Your task to perform on an android device: turn pop-ups on in chrome Image 0: 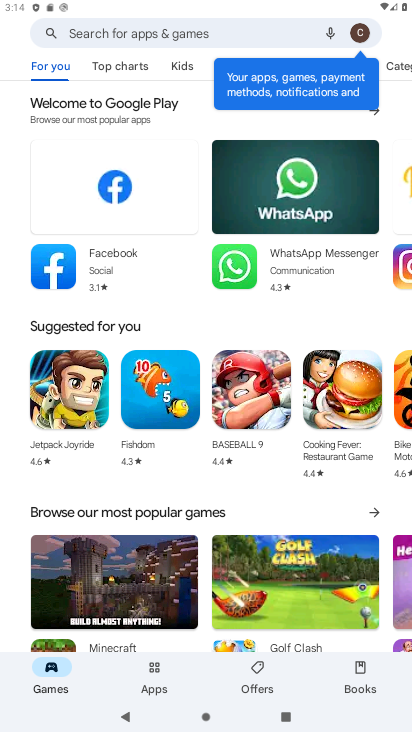
Step 0: press home button
Your task to perform on an android device: turn pop-ups on in chrome Image 1: 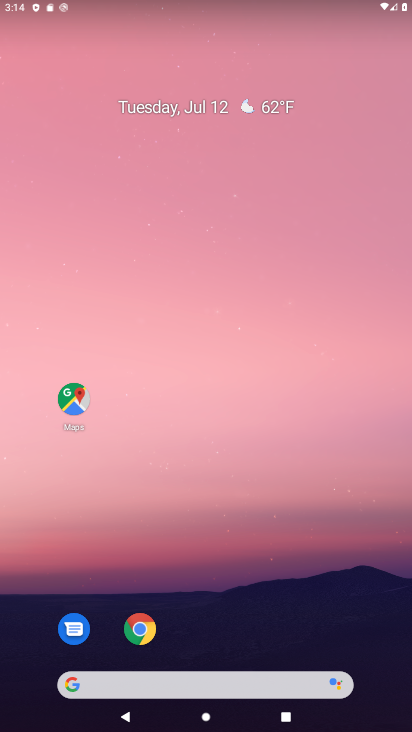
Step 1: click (134, 622)
Your task to perform on an android device: turn pop-ups on in chrome Image 2: 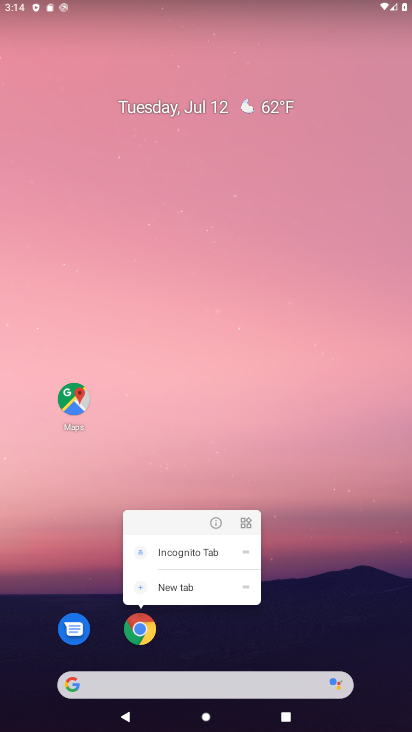
Step 2: click (150, 620)
Your task to perform on an android device: turn pop-ups on in chrome Image 3: 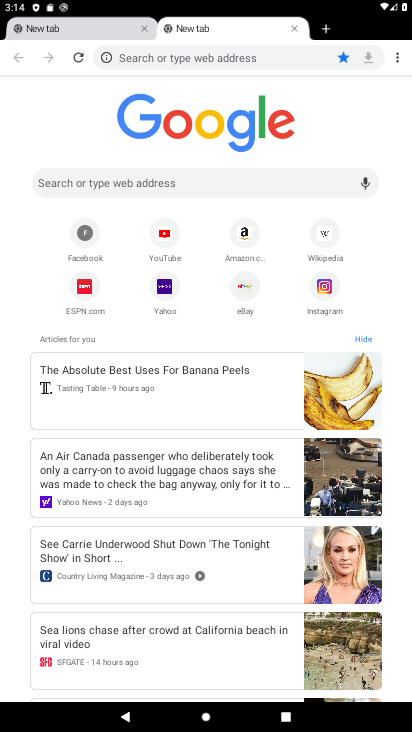
Step 3: drag from (392, 50) to (278, 258)
Your task to perform on an android device: turn pop-ups on in chrome Image 4: 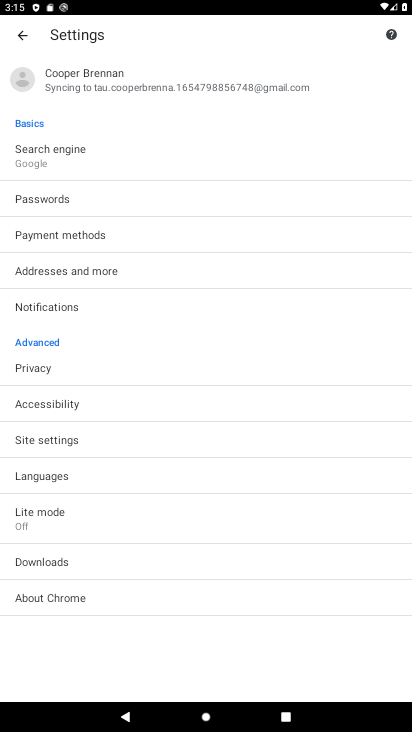
Step 4: click (46, 430)
Your task to perform on an android device: turn pop-ups on in chrome Image 5: 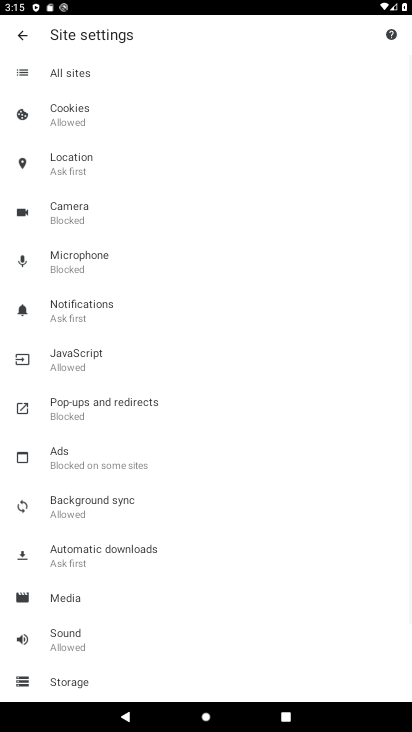
Step 5: click (62, 411)
Your task to perform on an android device: turn pop-ups on in chrome Image 6: 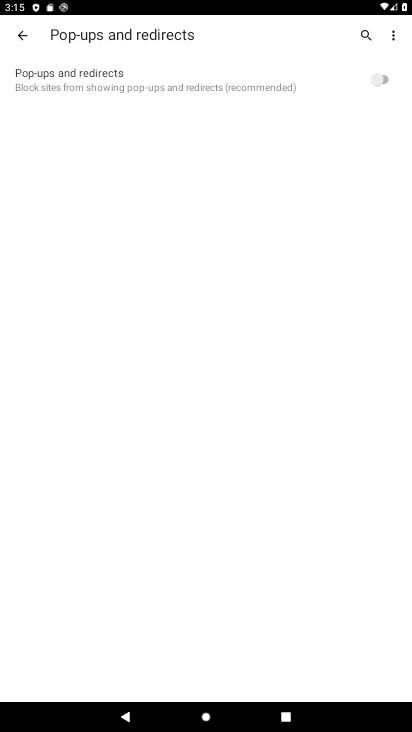
Step 6: click (378, 77)
Your task to perform on an android device: turn pop-ups on in chrome Image 7: 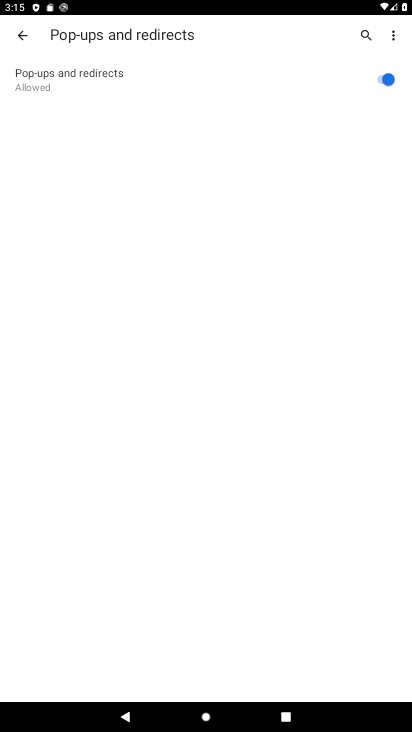
Step 7: task complete